Your task to perform on an android device: empty trash in the gmail app Image 0: 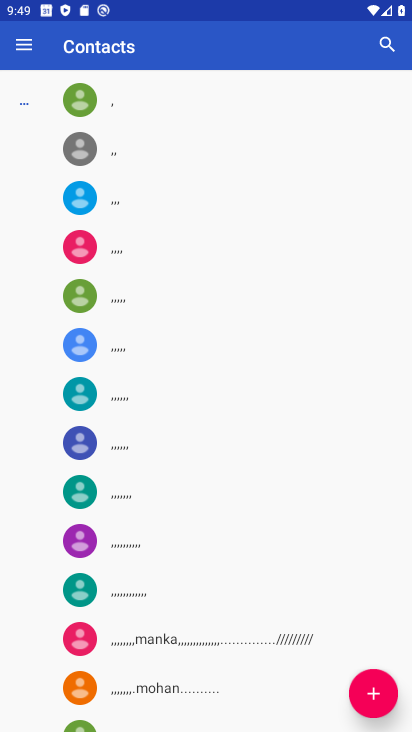
Step 0: press home button
Your task to perform on an android device: empty trash in the gmail app Image 1: 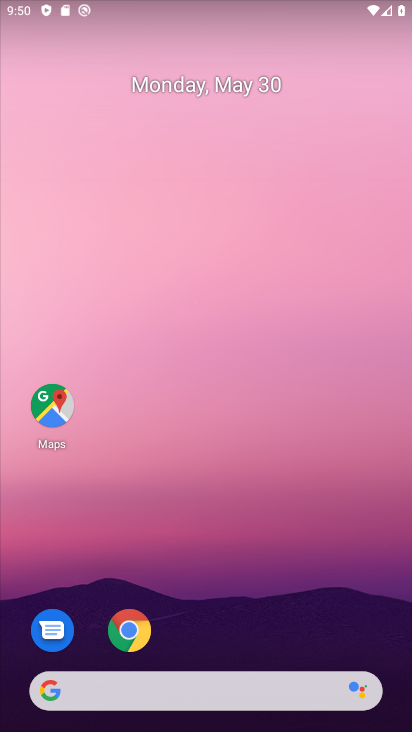
Step 1: drag from (275, 609) to (287, 55)
Your task to perform on an android device: empty trash in the gmail app Image 2: 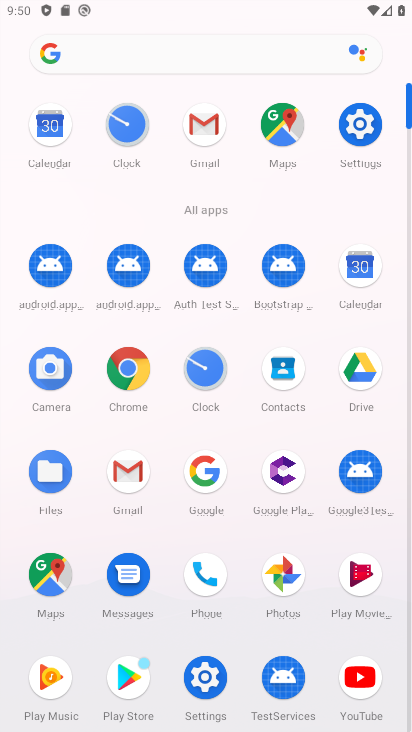
Step 2: click (202, 138)
Your task to perform on an android device: empty trash in the gmail app Image 3: 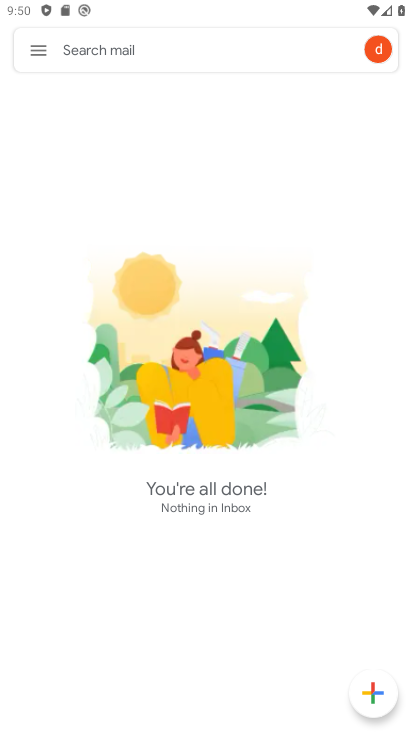
Step 3: task complete